Your task to perform on an android device: change the clock style Image 0: 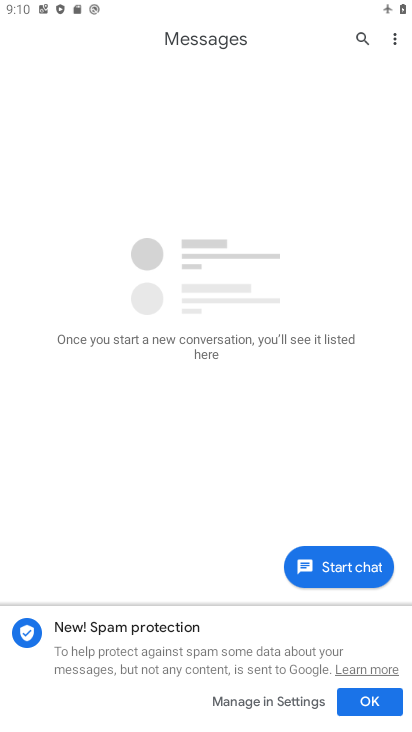
Step 0: press home button
Your task to perform on an android device: change the clock style Image 1: 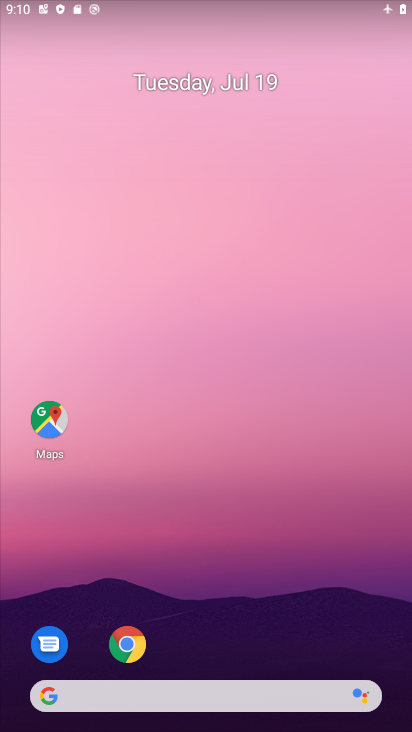
Step 1: drag from (225, 677) to (174, 124)
Your task to perform on an android device: change the clock style Image 2: 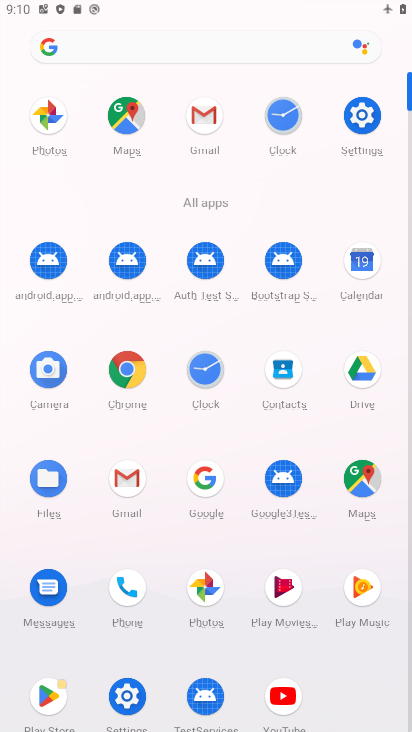
Step 2: click (210, 374)
Your task to perform on an android device: change the clock style Image 3: 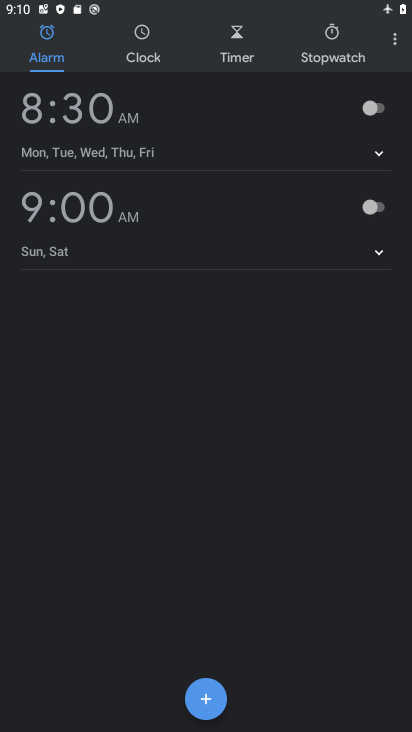
Step 3: click (393, 40)
Your task to perform on an android device: change the clock style Image 4: 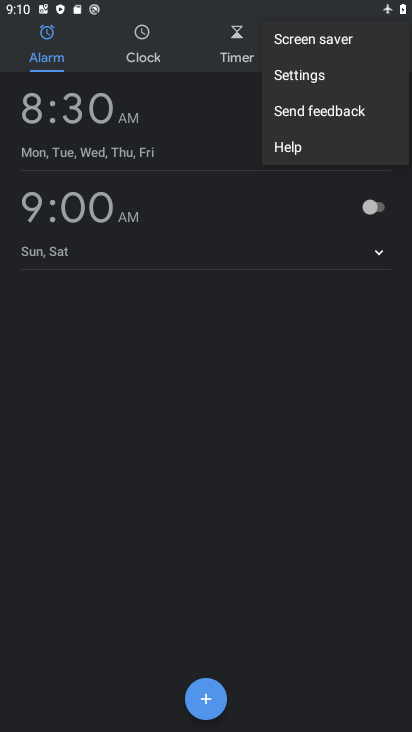
Step 4: click (317, 70)
Your task to perform on an android device: change the clock style Image 5: 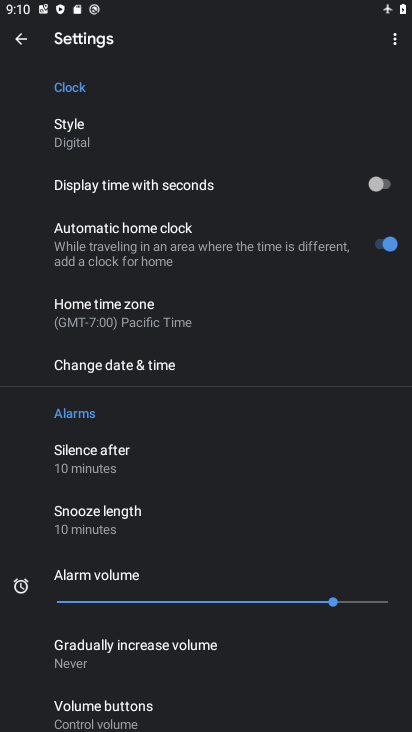
Step 5: click (65, 131)
Your task to perform on an android device: change the clock style Image 6: 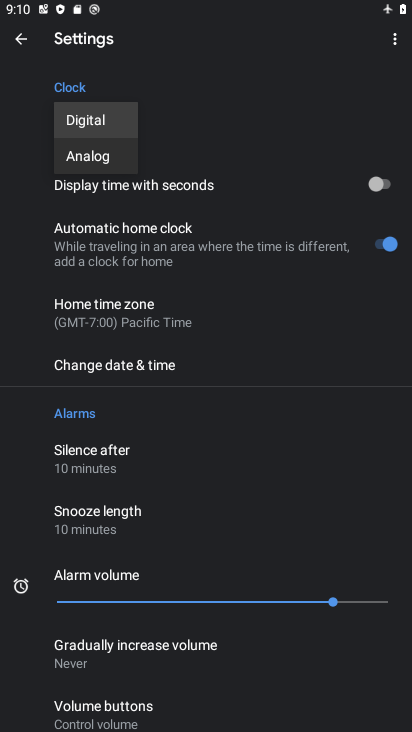
Step 6: click (82, 155)
Your task to perform on an android device: change the clock style Image 7: 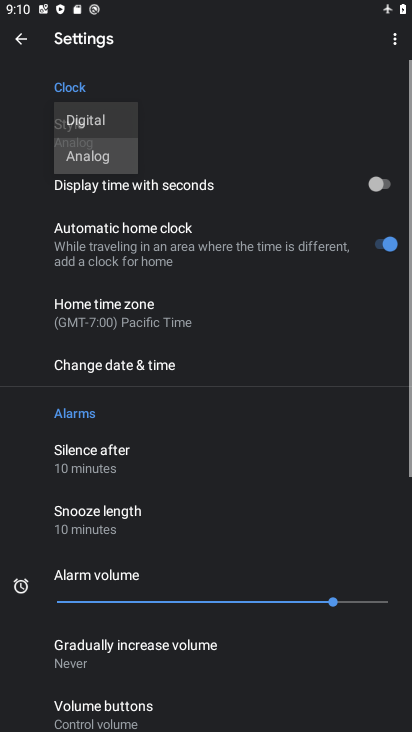
Step 7: click (82, 155)
Your task to perform on an android device: change the clock style Image 8: 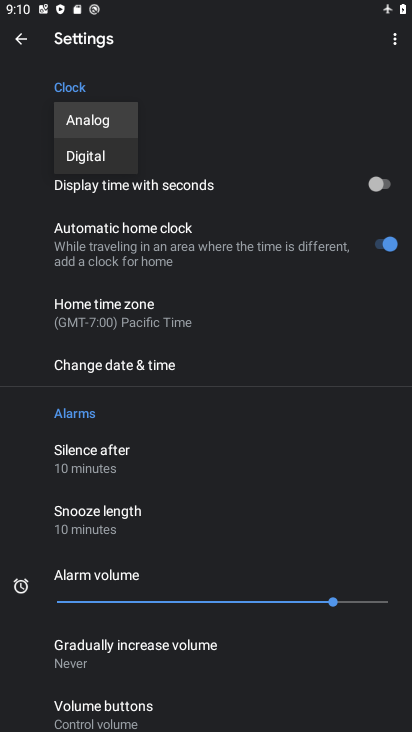
Step 8: task complete